Your task to perform on an android device: See recent photos Image 0: 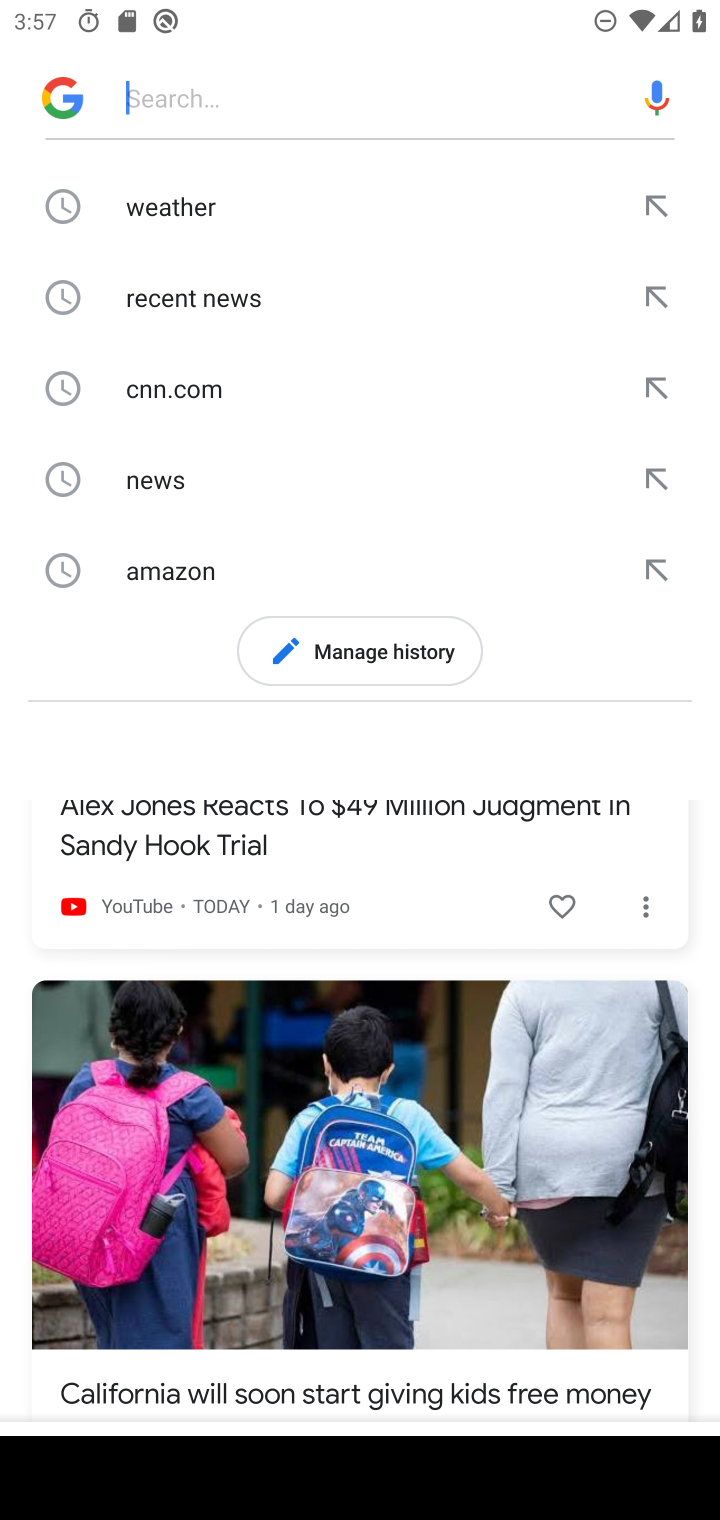
Step 0: press back button
Your task to perform on an android device: See recent photos Image 1: 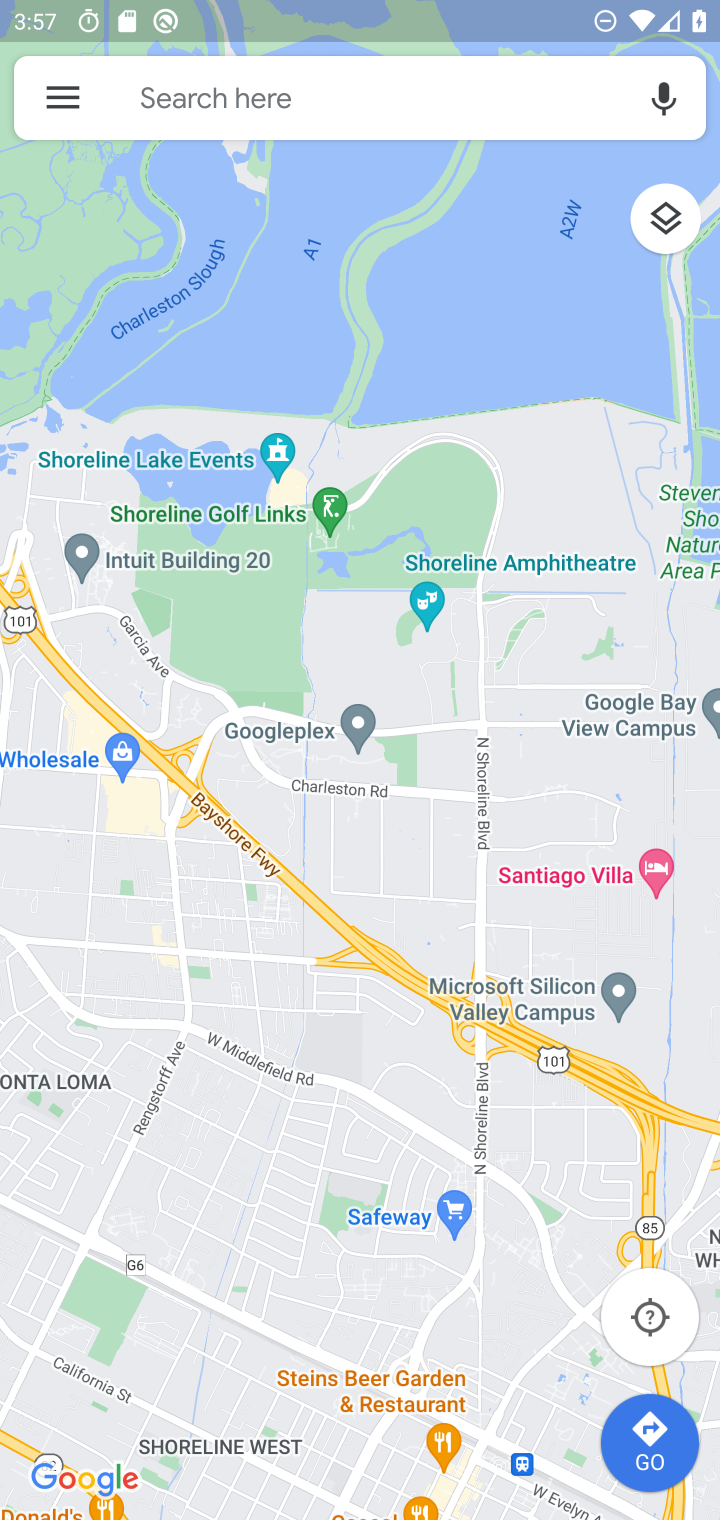
Step 1: press back button
Your task to perform on an android device: See recent photos Image 2: 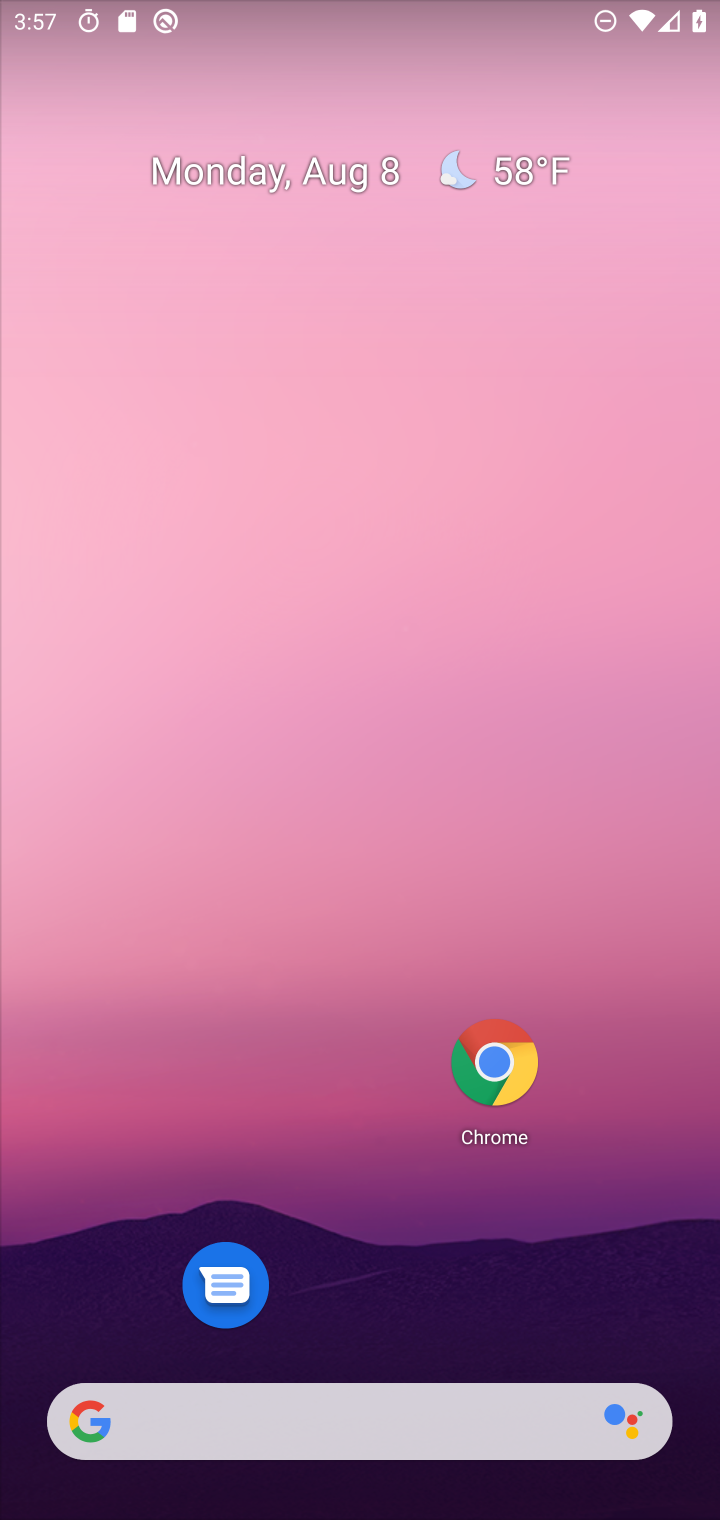
Step 2: press back button
Your task to perform on an android device: See recent photos Image 3: 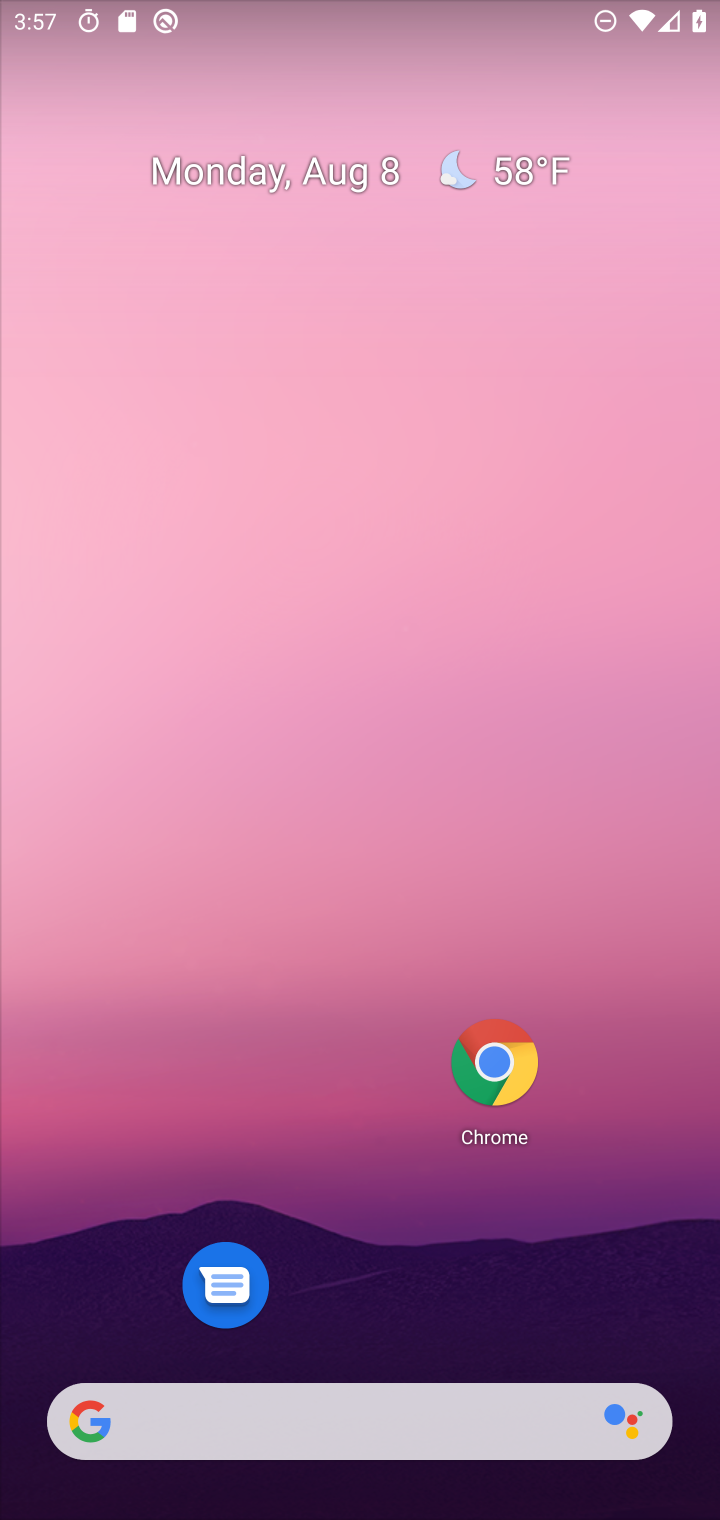
Step 3: drag from (424, 613) to (468, 175)
Your task to perform on an android device: See recent photos Image 4: 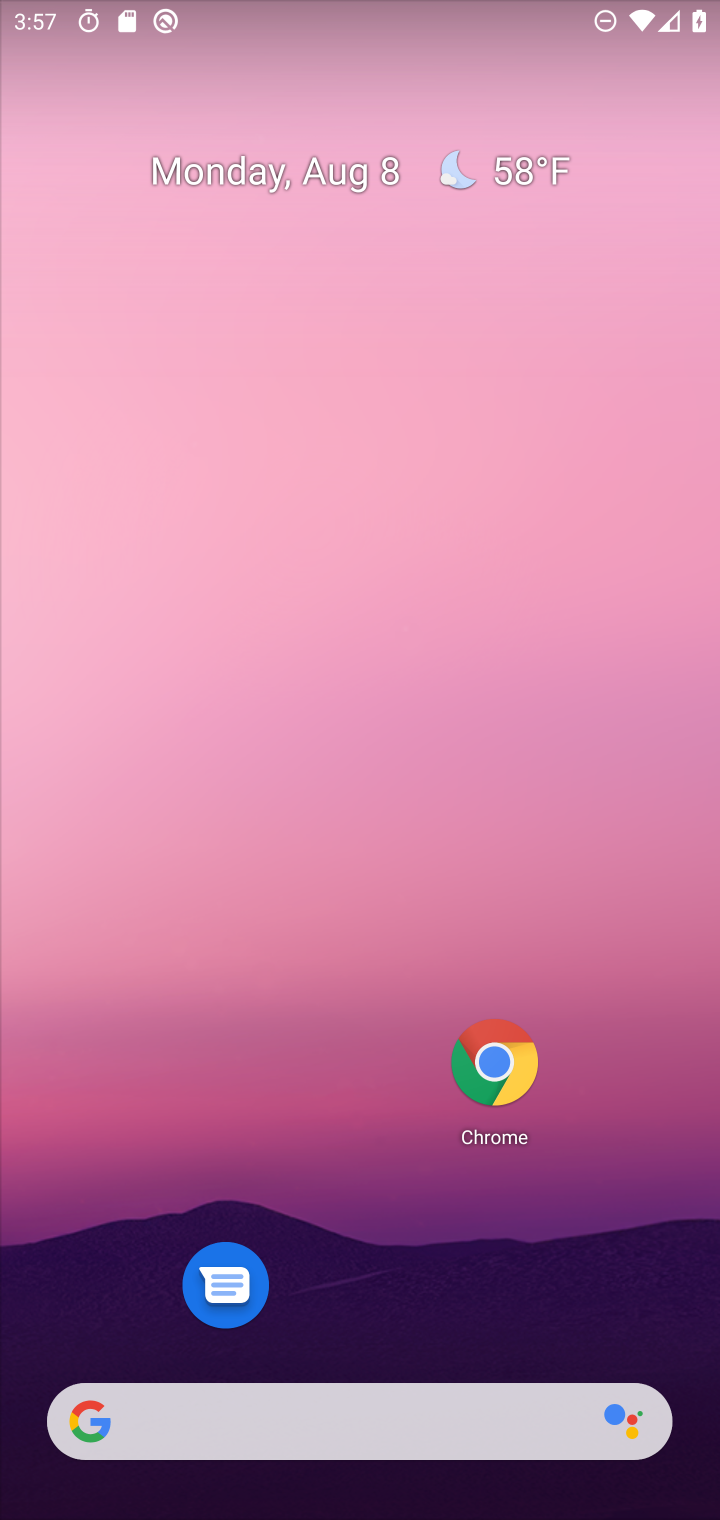
Step 4: drag from (446, 1322) to (353, 23)
Your task to perform on an android device: See recent photos Image 5: 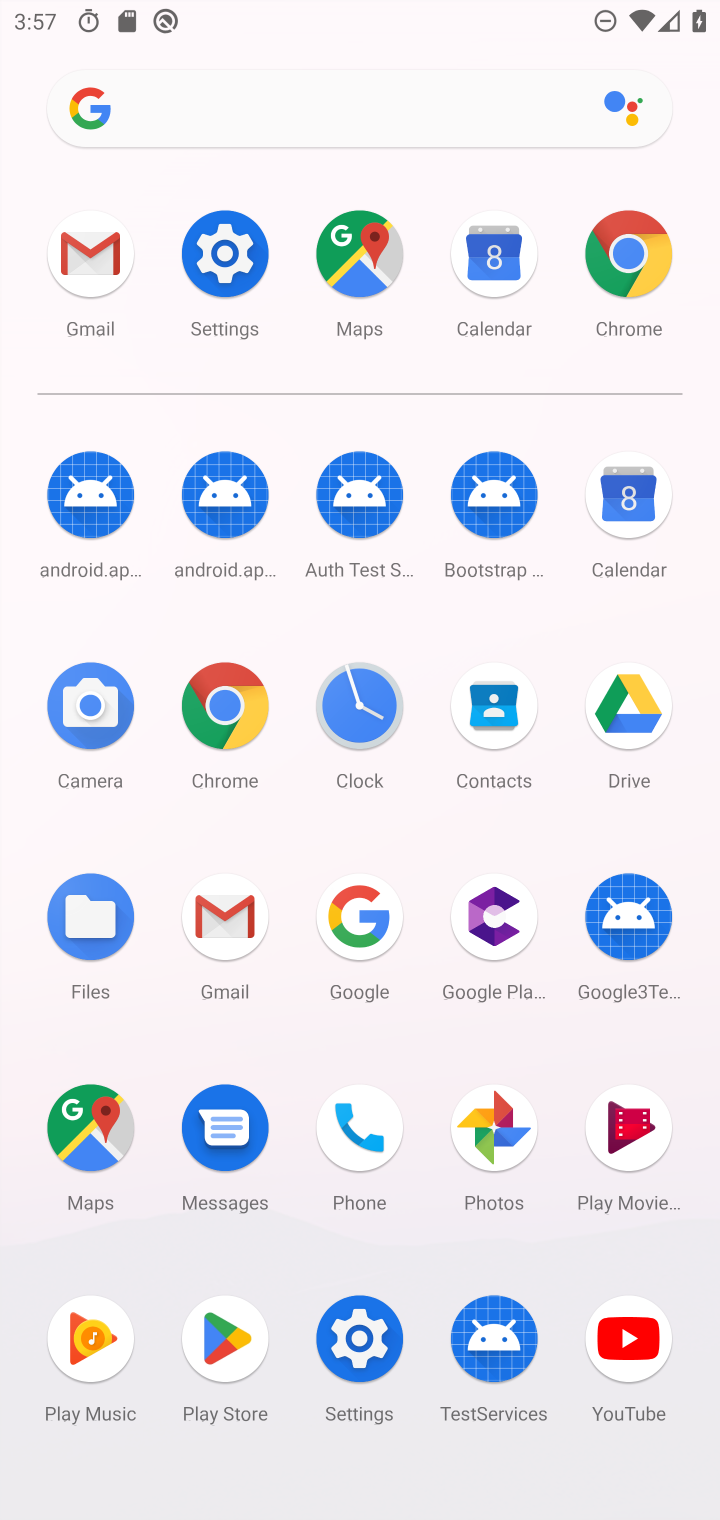
Step 5: click (500, 1100)
Your task to perform on an android device: See recent photos Image 6: 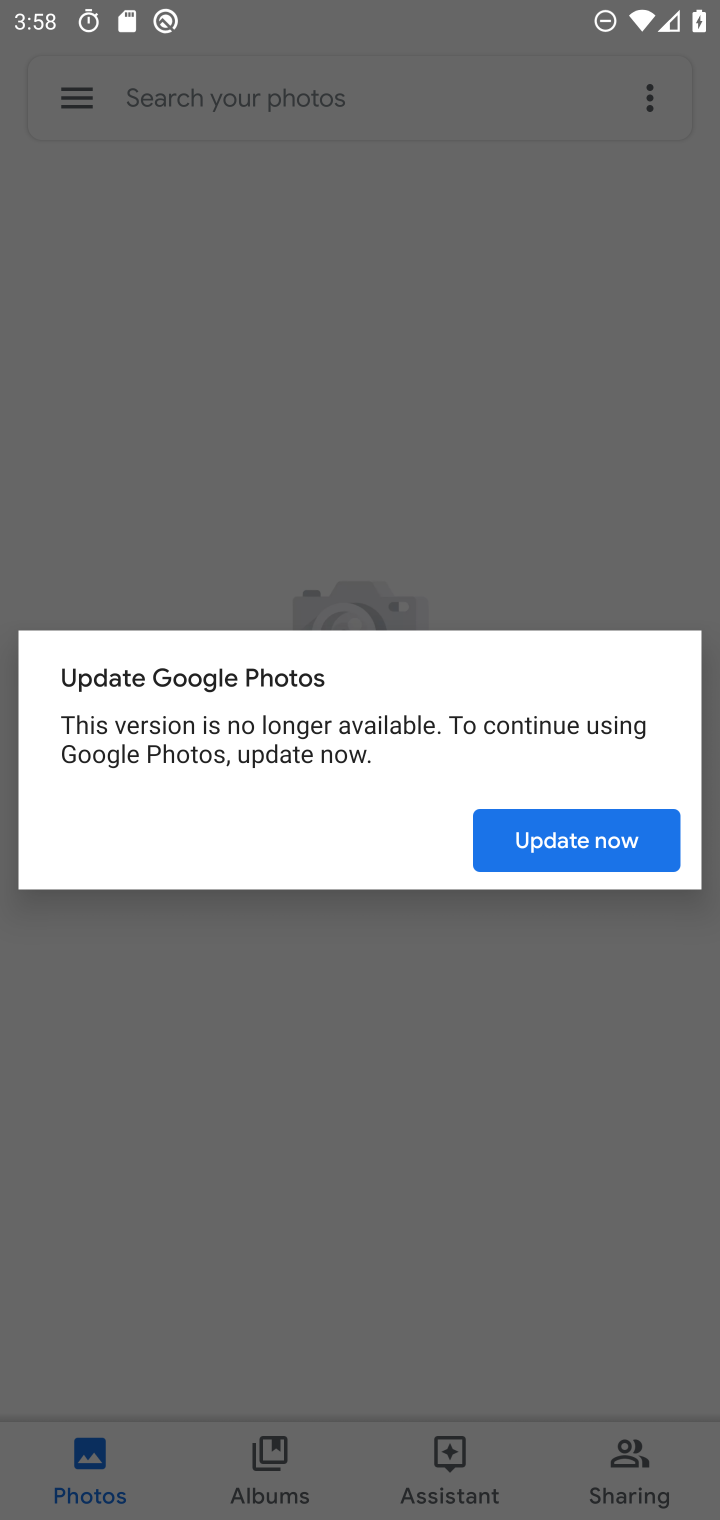
Step 6: click (579, 772)
Your task to perform on an android device: See recent photos Image 7: 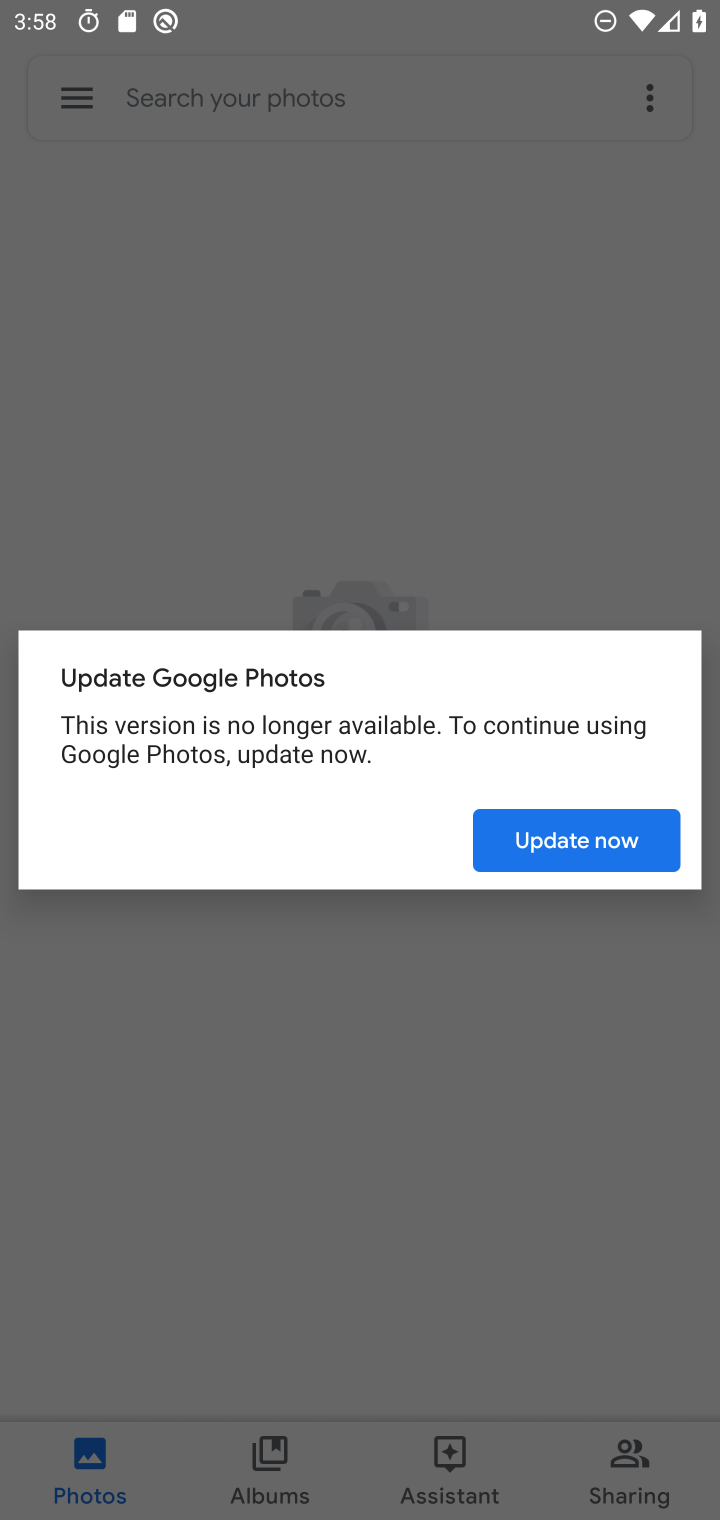
Step 7: click (542, 863)
Your task to perform on an android device: See recent photos Image 8: 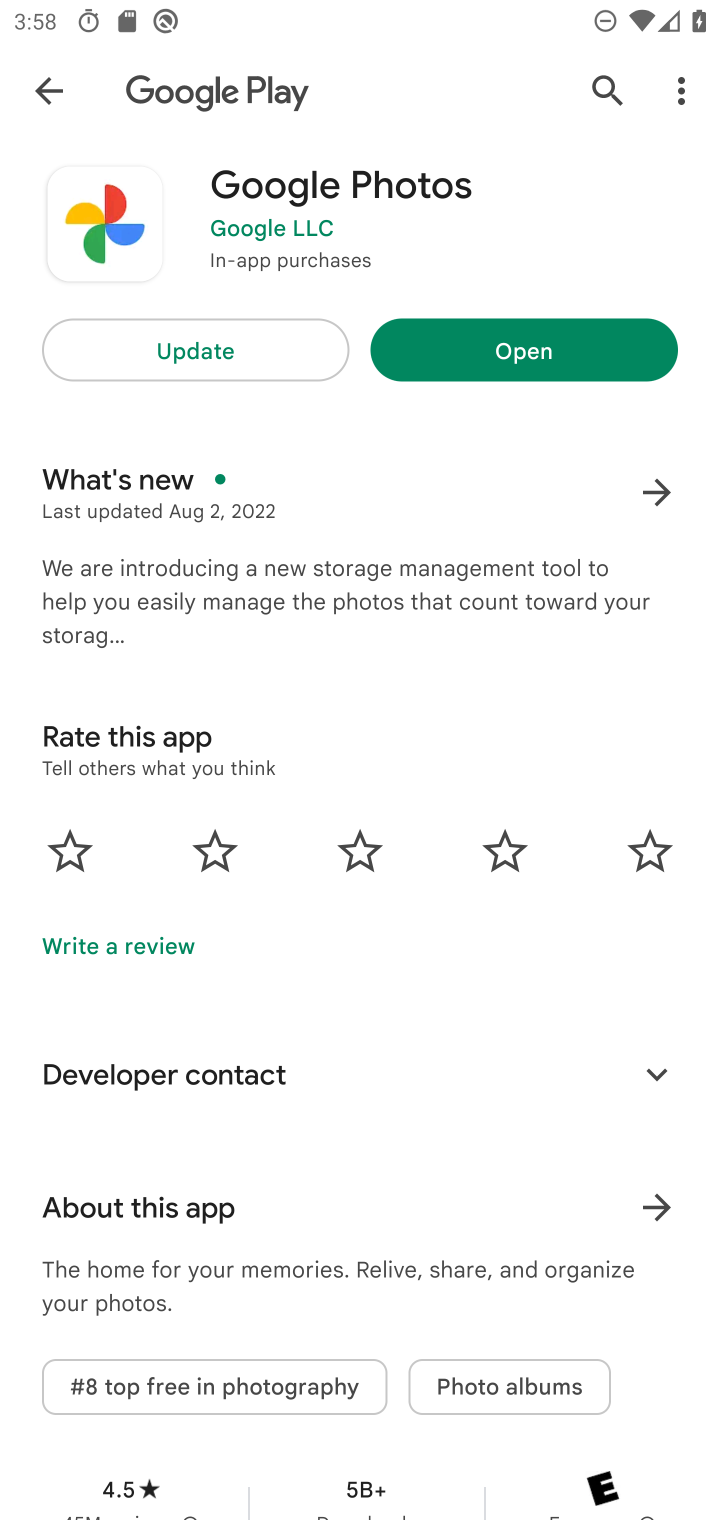
Step 8: click (479, 351)
Your task to perform on an android device: See recent photos Image 9: 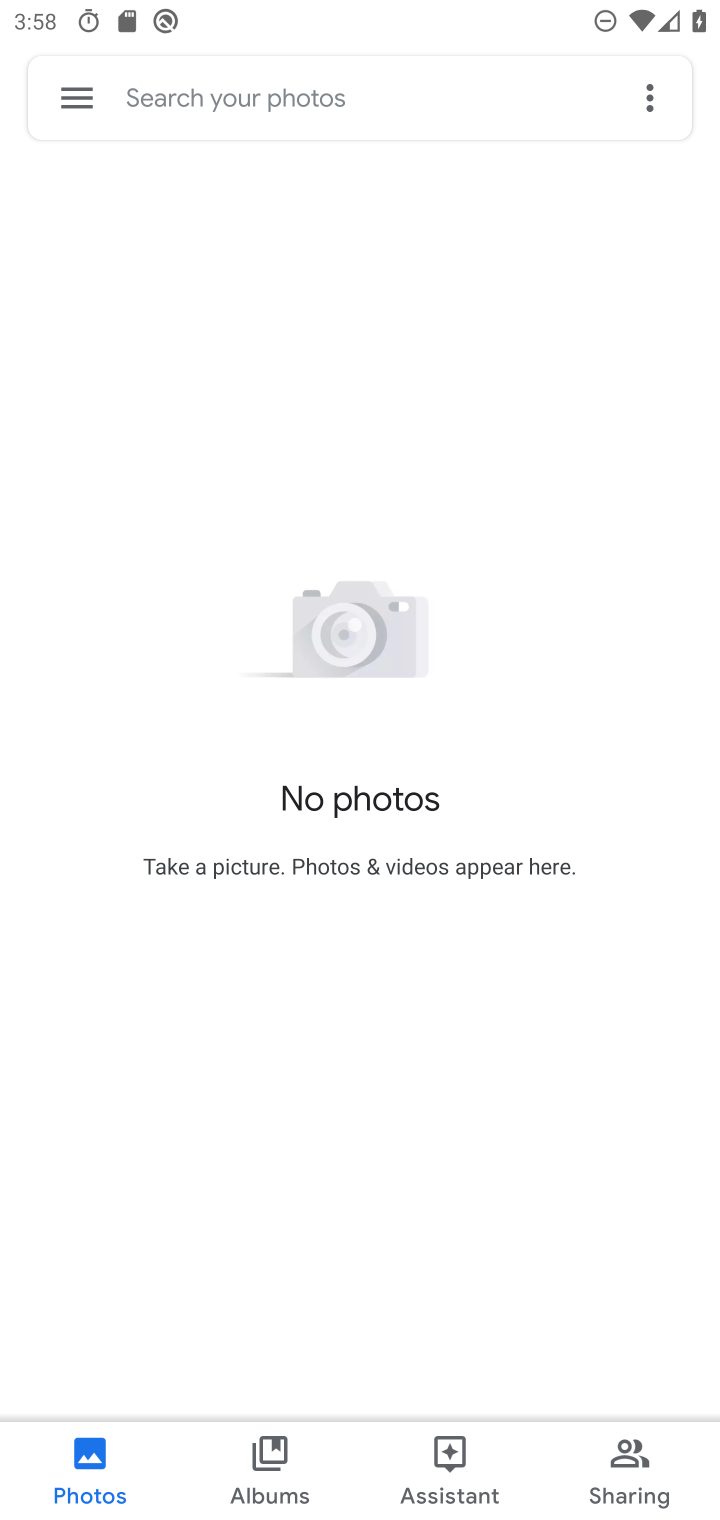
Step 9: click (62, 1477)
Your task to perform on an android device: See recent photos Image 10: 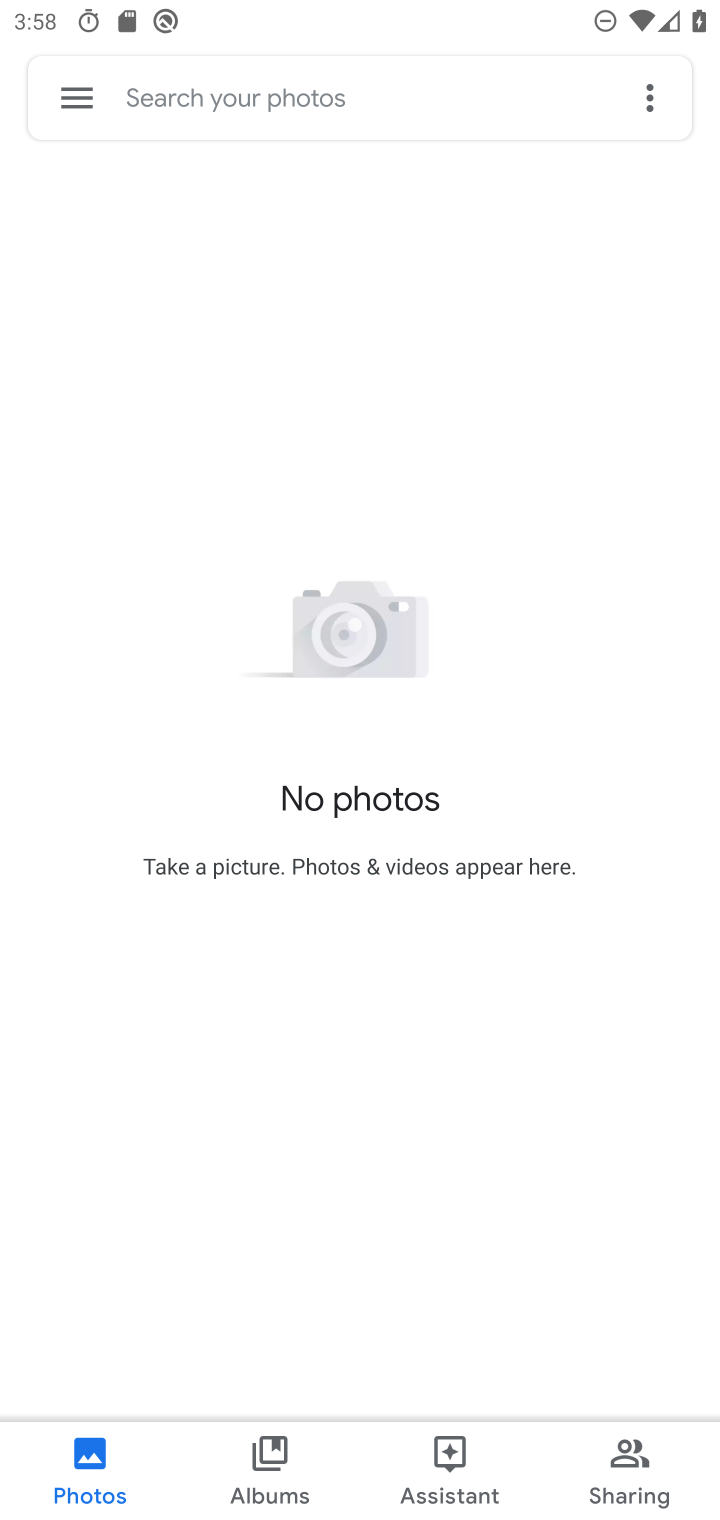
Step 10: task complete